Your task to perform on an android device: Open the Play Movies app and select the watchlist tab. Image 0: 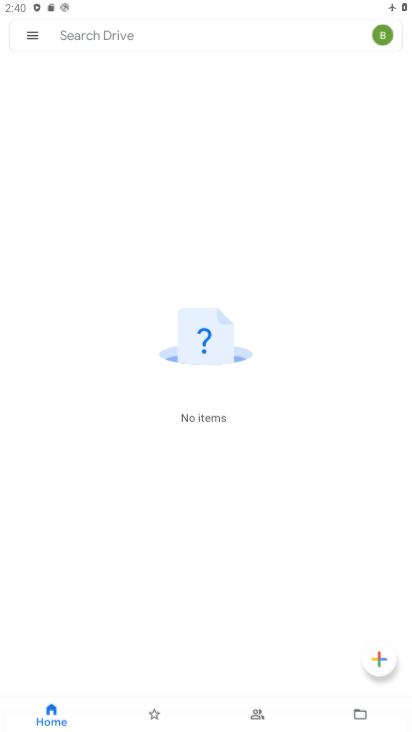
Step 0: drag from (285, 607) to (321, 214)
Your task to perform on an android device: Open the Play Movies app and select the watchlist tab. Image 1: 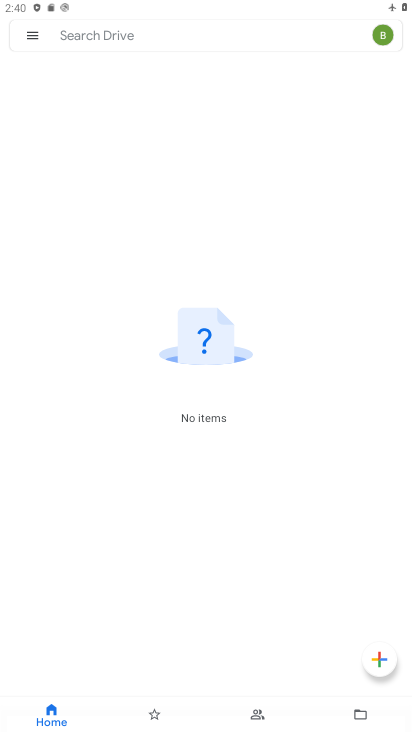
Step 1: press home button
Your task to perform on an android device: Open the Play Movies app and select the watchlist tab. Image 2: 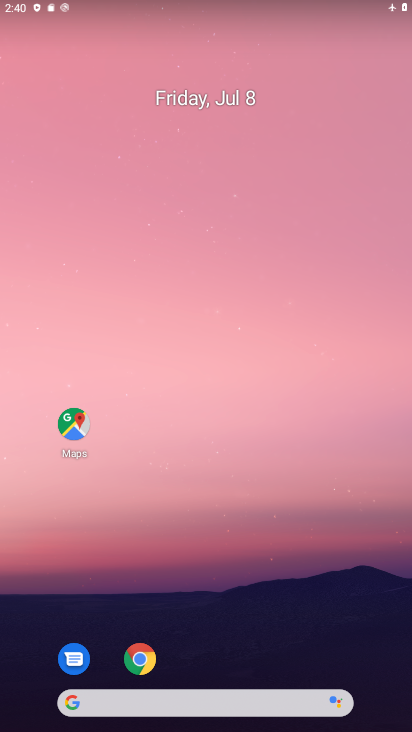
Step 2: drag from (230, 602) to (231, 142)
Your task to perform on an android device: Open the Play Movies app and select the watchlist tab. Image 3: 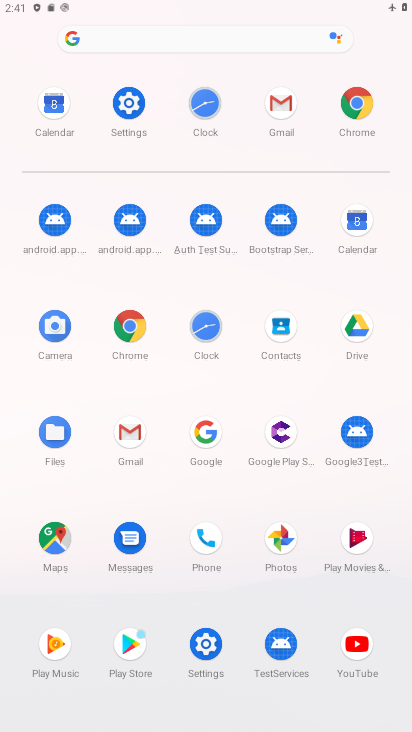
Step 3: click (353, 552)
Your task to perform on an android device: Open the Play Movies app and select the watchlist tab. Image 4: 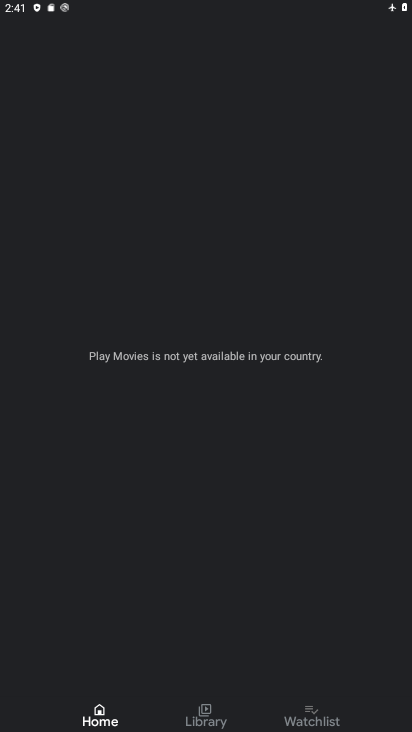
Step 4: click (303, 724)
Your task to perform on an android device: Open the Play Movies app and select the watchlist tab. Image 5: 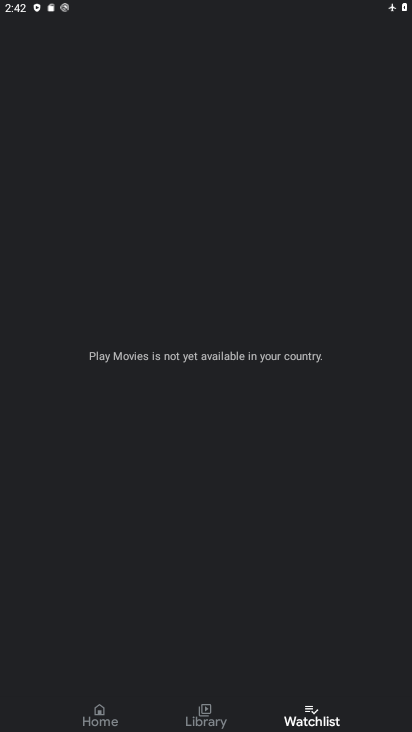
Step 5: task complete